Your task to perform on an android device: toggle priority inbox in the gmail app Image 0: 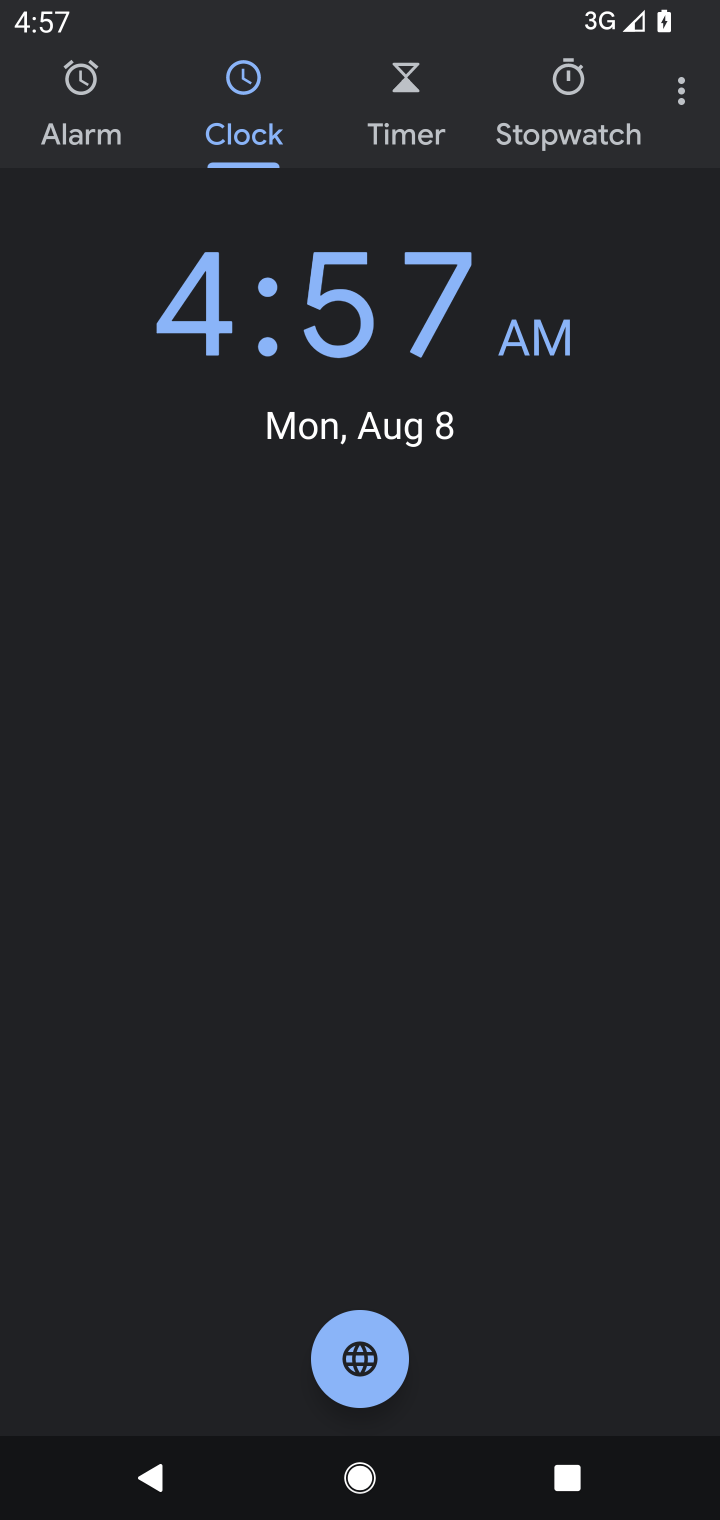
Step 0: press home button
Your task to perform on an android device: toggle priority inbox in the gmail app Image 1: 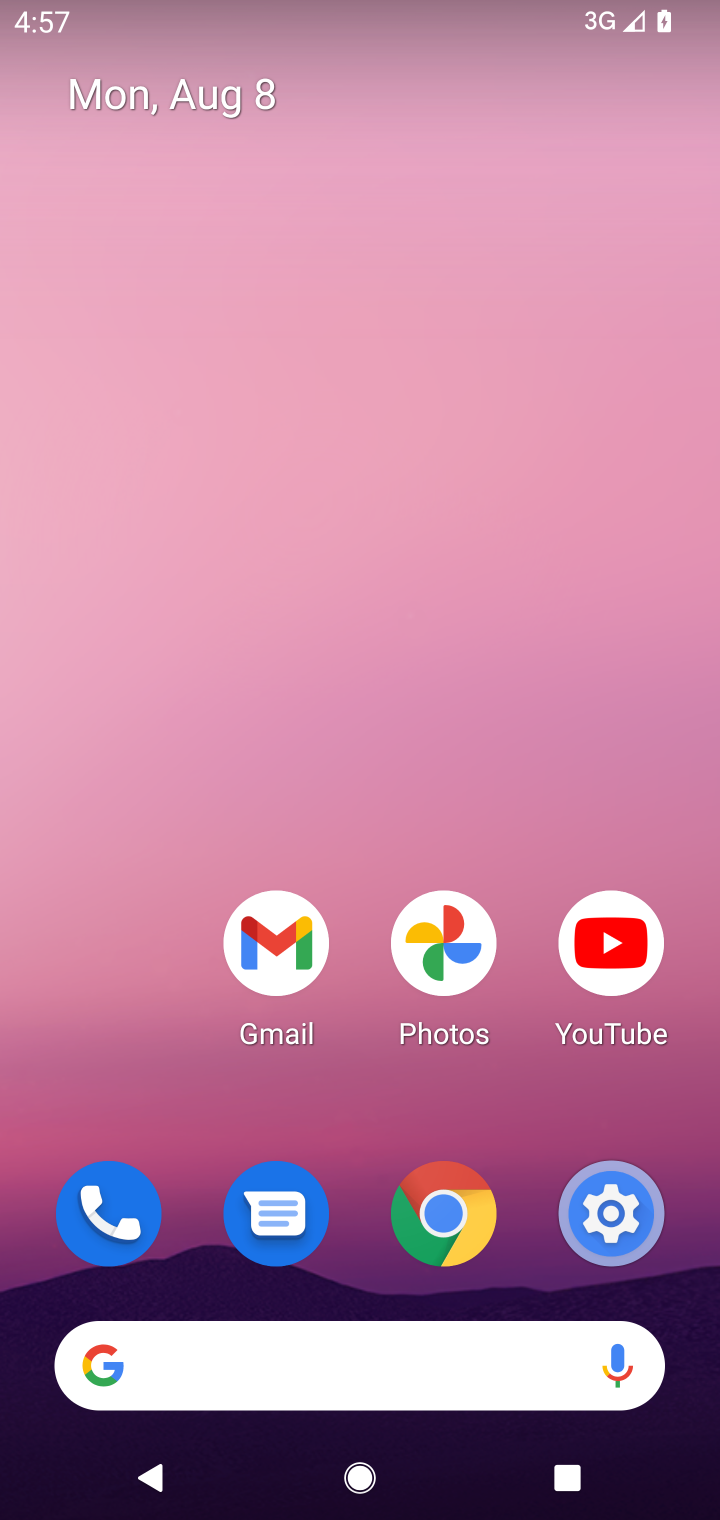
Step 1: click (276, 951)
Your task to perform on an android device: toggle priority inbox in the gmail app Image 2: 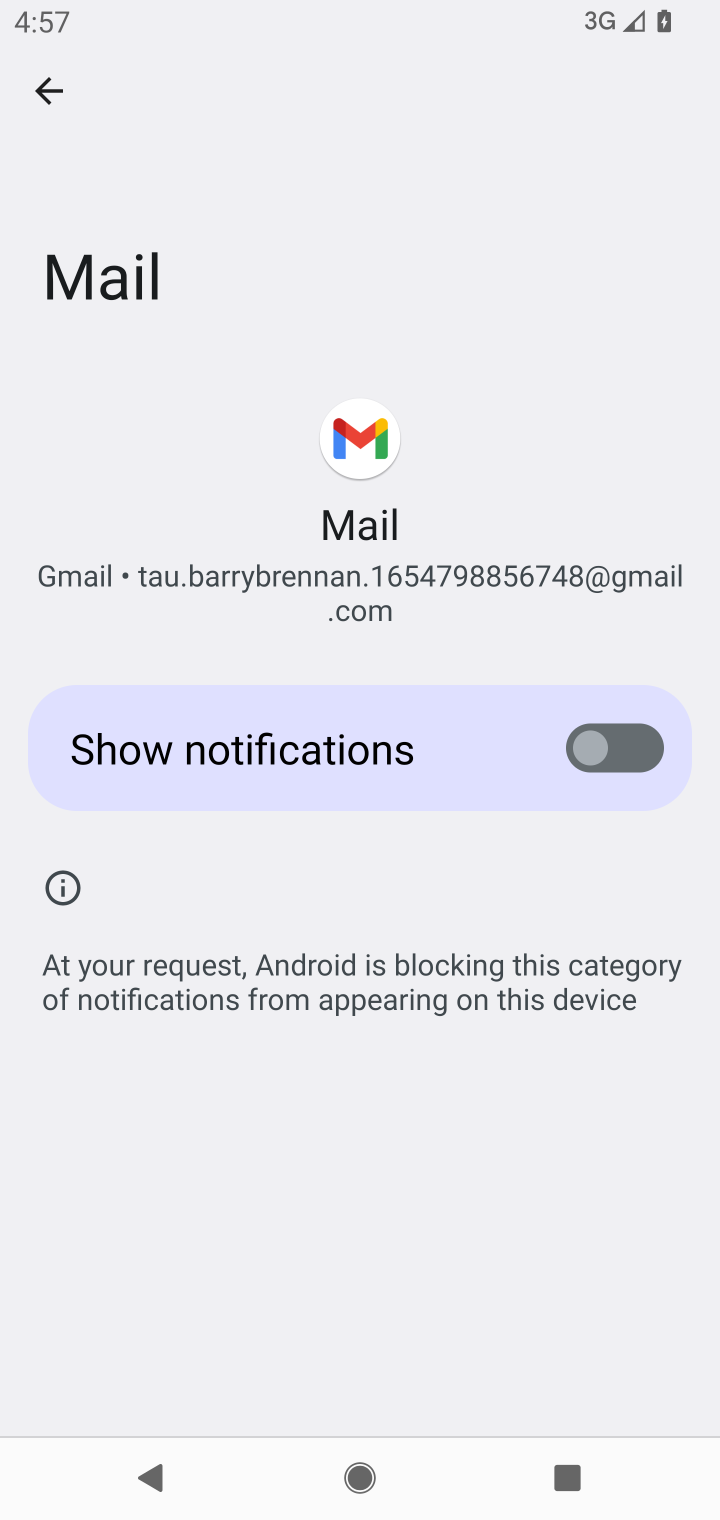
Step 2: click (41, 99)
Your task to perform on an android device: toggle priority inbox in the gmail app Image 3: 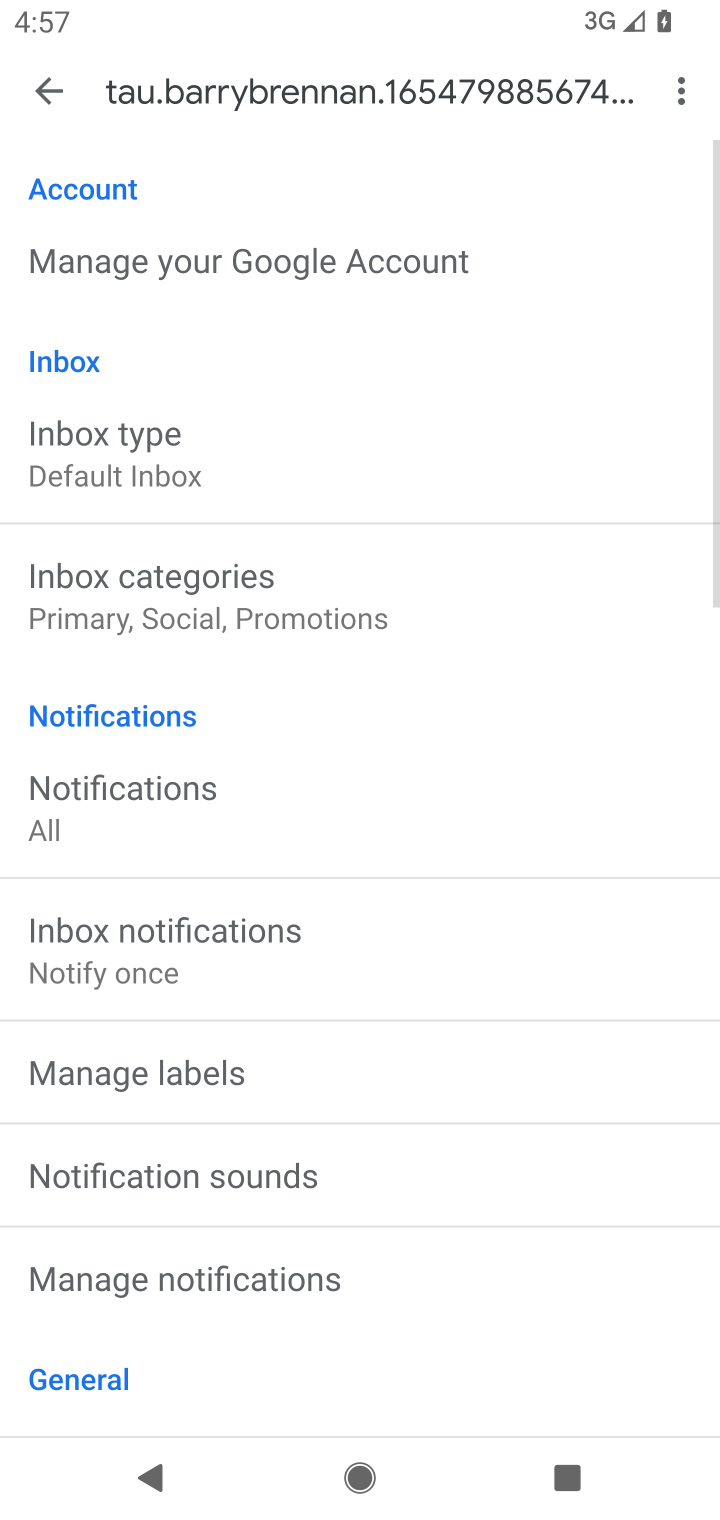
Step 3: drag from (218, 283) to (274, 564)
Your task to perform on an android device: toggle priority inbox in the gmail app Image 4: 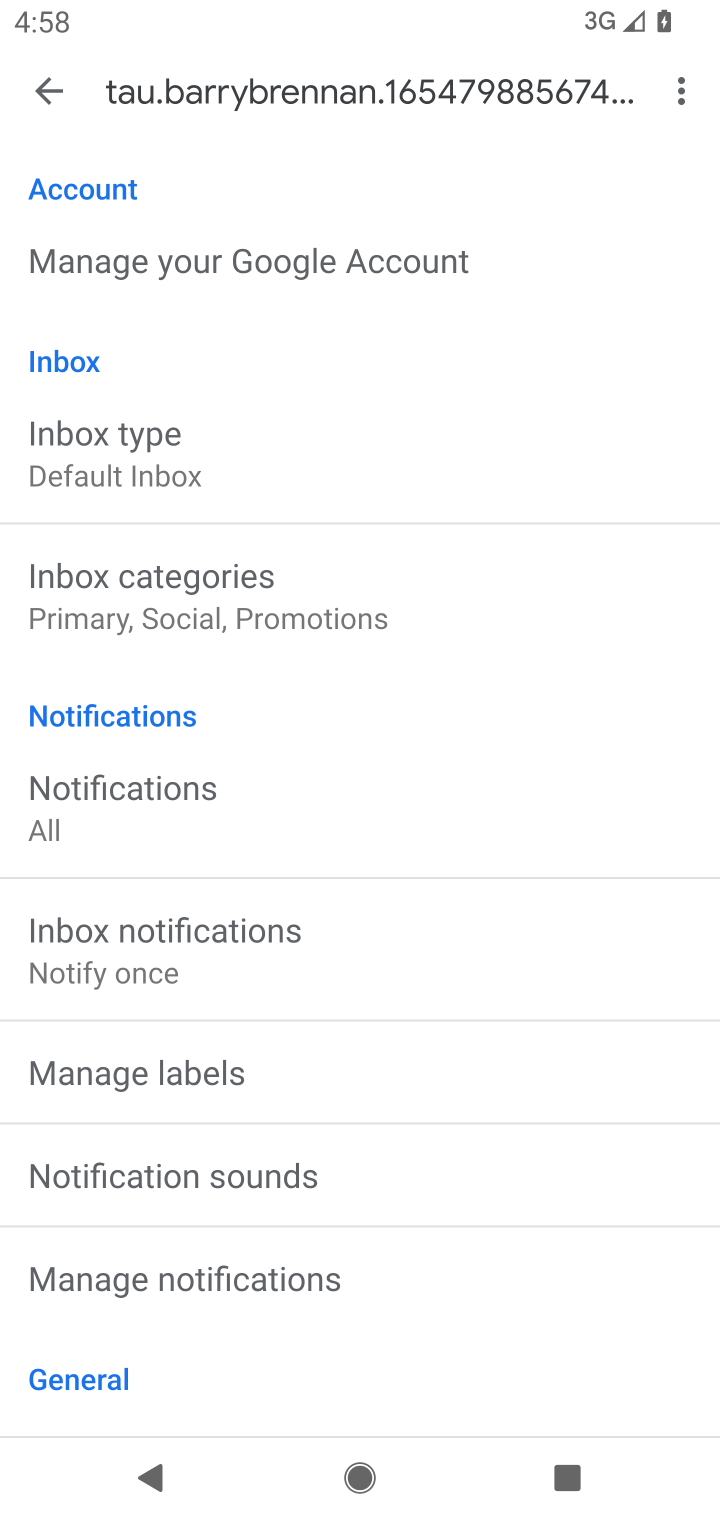
Step 4: click (320, 476)
Your task to perform on an android device: toggle priority inbox in the gmail app Image 5: 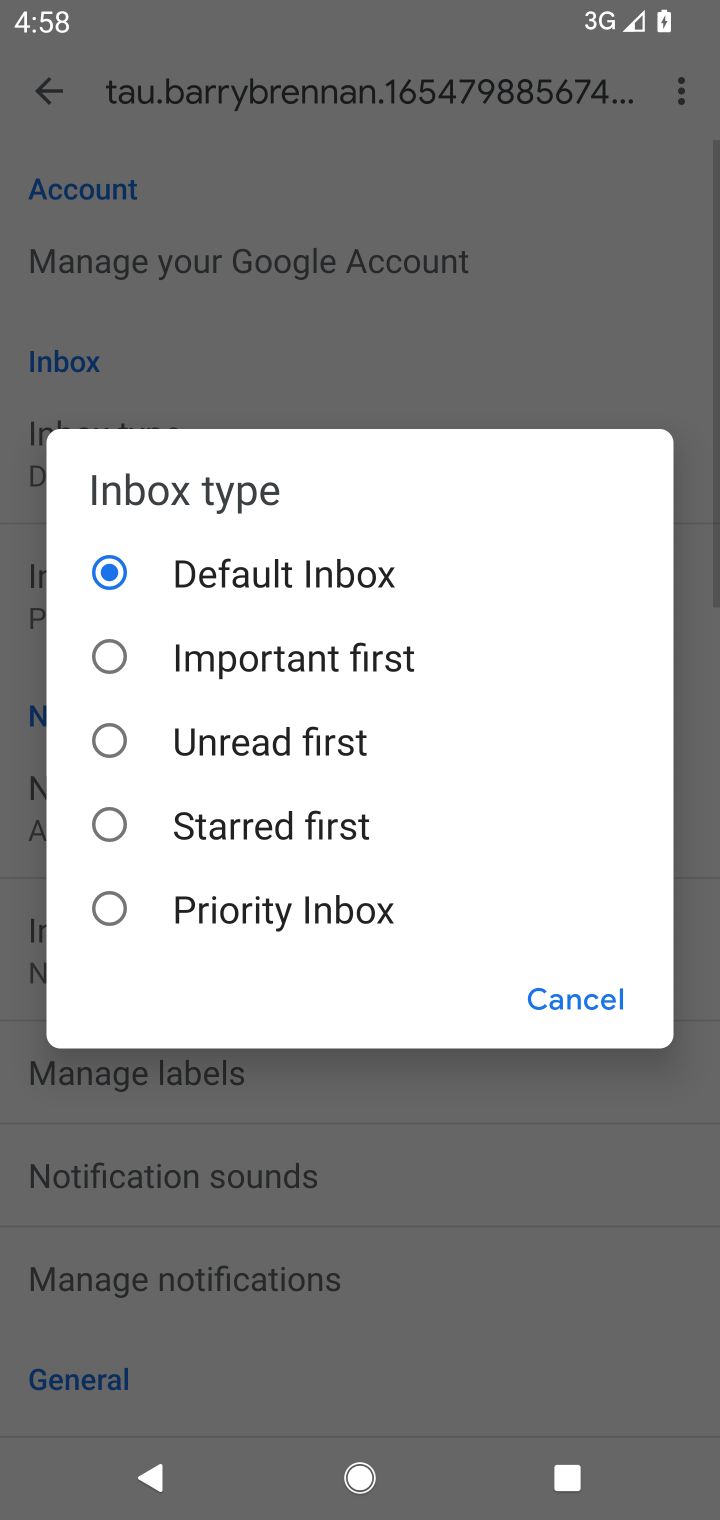
Step 5: click (271, 929)
Your task to perform on an android device: toggle priority inbox in the gmail app Image 6: 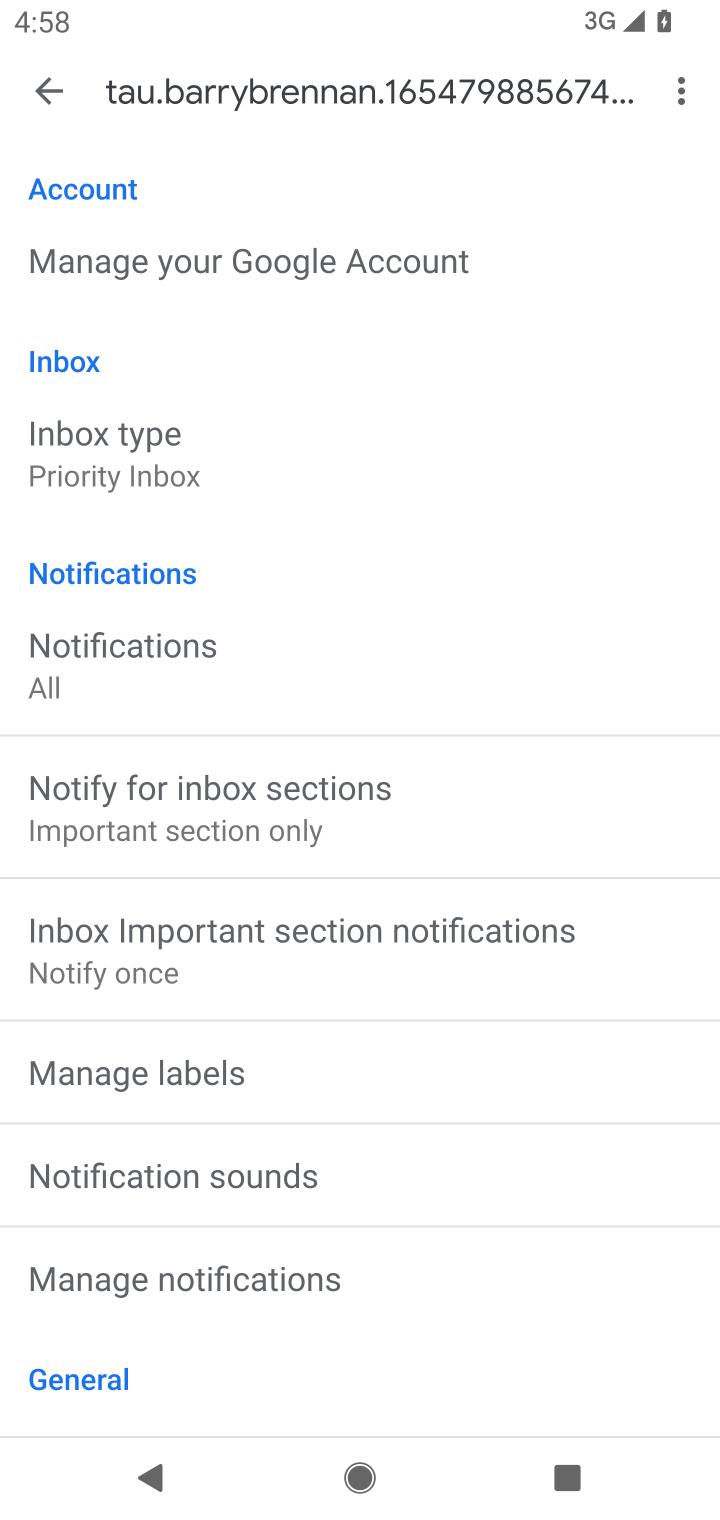
Step 6: task complete